Your task to perform on an android device: Go to Maps Image 0: 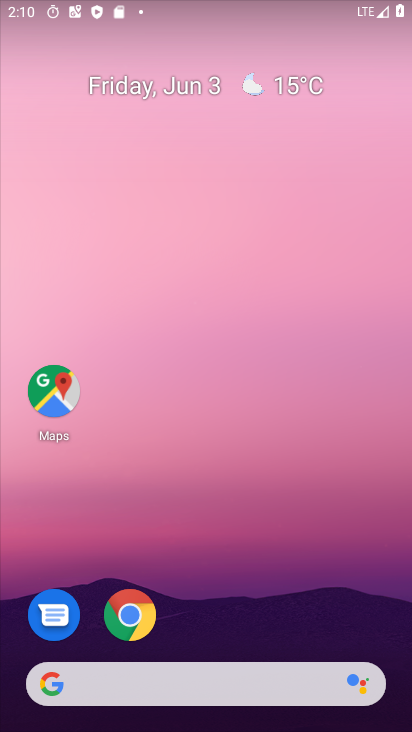
Step 0: drag from (226, 594) to (195, 0)
Your task to perform on an android device: Go to Maps Image 1: 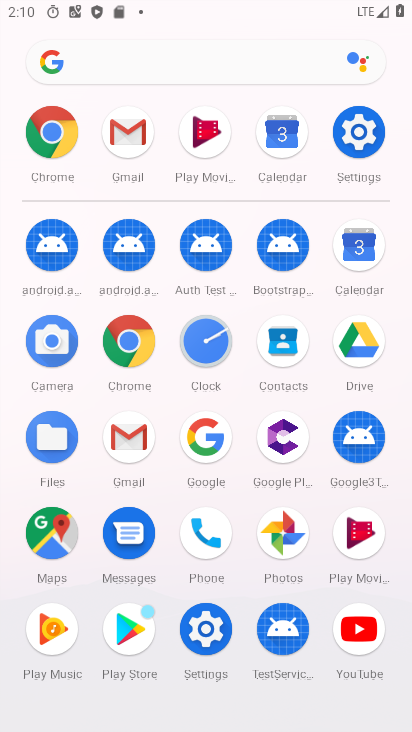
Step 1: click (49, 525)
Your task to perform on an android device: Go to Maps Image 2: 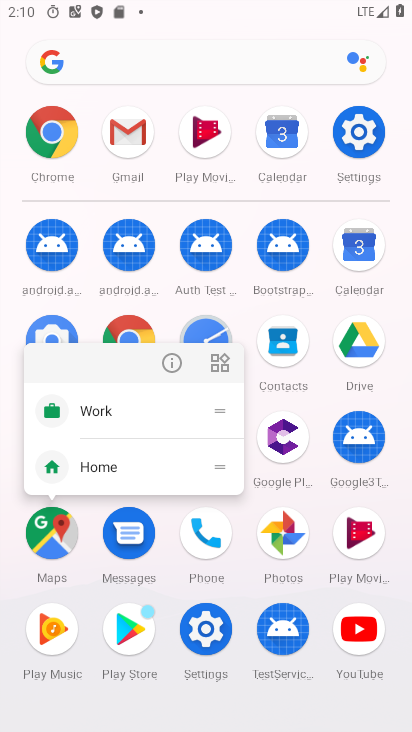
Step 2: click (169, 366)
Your task to perform on an android device: Go to Maps Image 3: 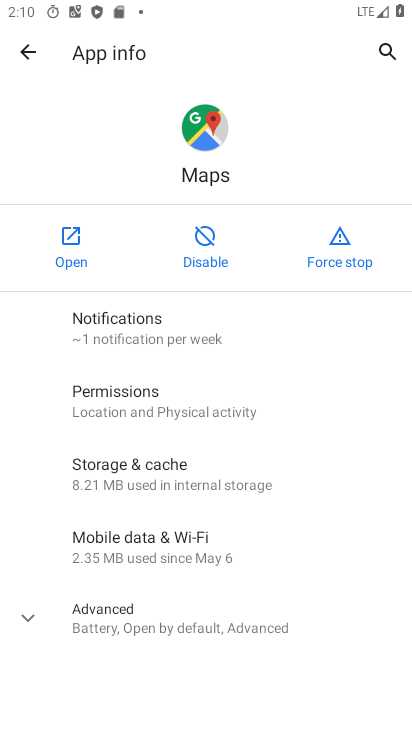
Step 3: click (72, 251)
Your task to perform on an android device: Go to Maps Image 4: 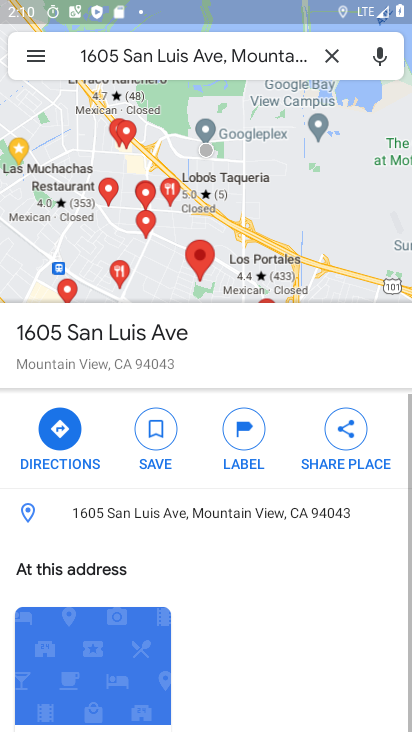
Step 4: task complete